Your task to perform on an android device: What is the recent news? Image 0: 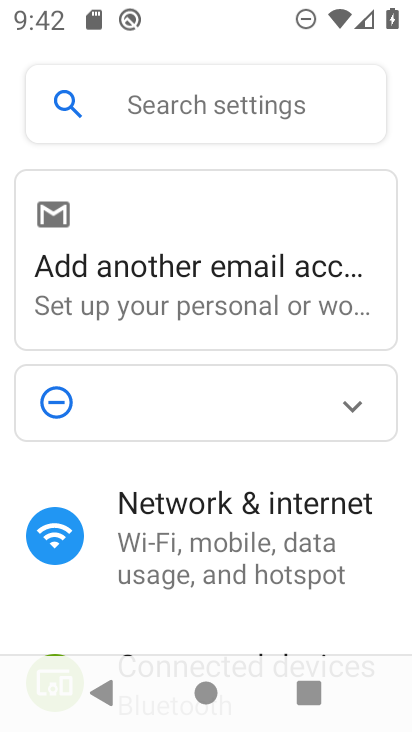
Step 0: press home button
Your task to perform on an android device: What is the recent news? Image 1: 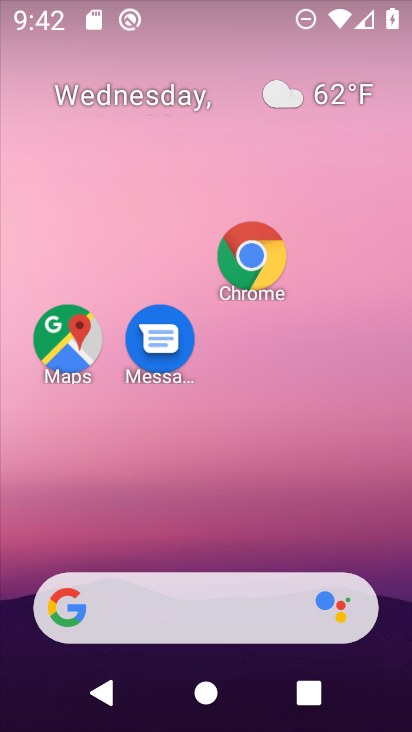
Step 1: drag from (251, 473) to (295, 63)
Your task to perform on an android device: What is the recent news? Image 2: 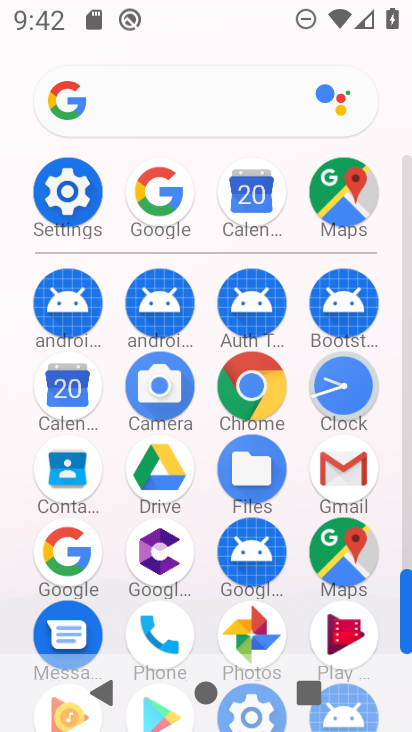
Step 2: click (162, 190)
Your task to perform on an android device: What is the recent news? Image 3: 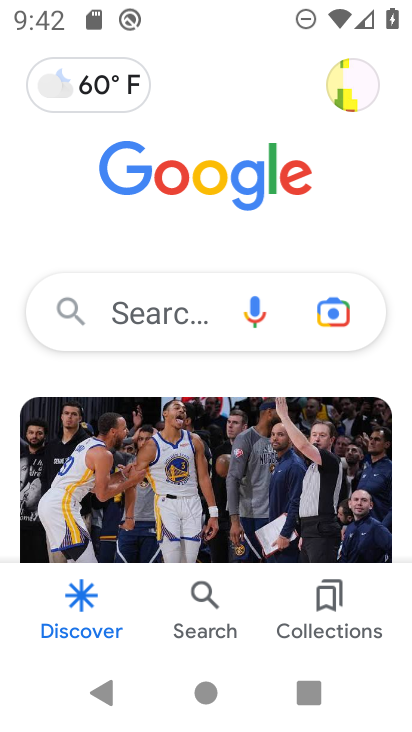
Step 3: click (163, 319)
Your task to perform on an android device: What is the recent news? Image 4: 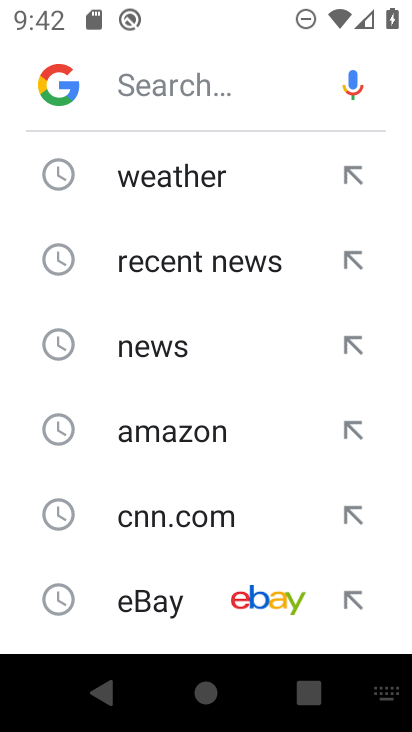
Step 4: click (193, 266)
Your task to perform on an android device: What is the recent news? Image 5: 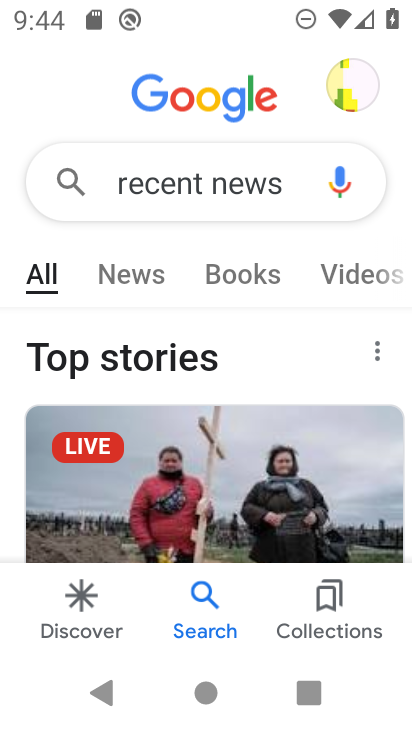
Step 5: task complete